Your task to perform on an android device: Play the last video I watched on Youtube Image 0: 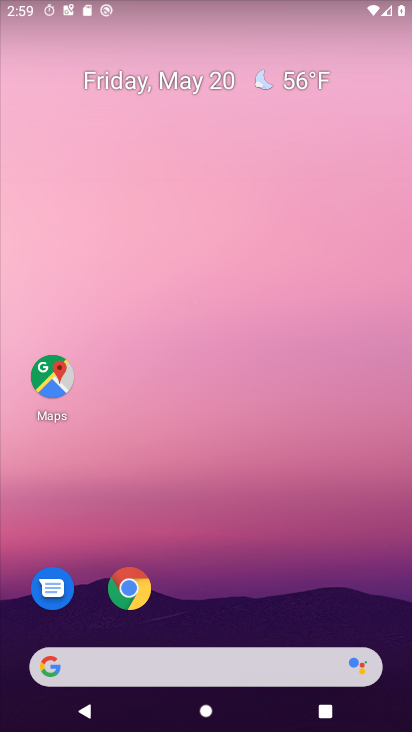
Step 0: drag from (17, 604) to (186, 171)
Your task to perform on an android device: Play the last video I watched on Youtube Image 1: 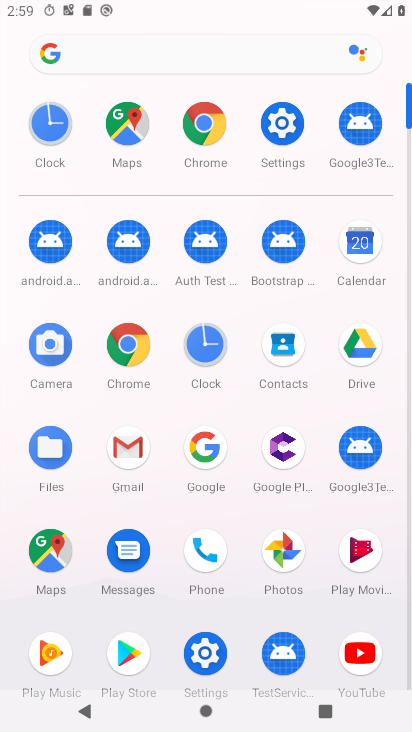
Step 1: click (349, 686)
Your task to perform on an android device: Play the last video I watched on Youtube Image 2: 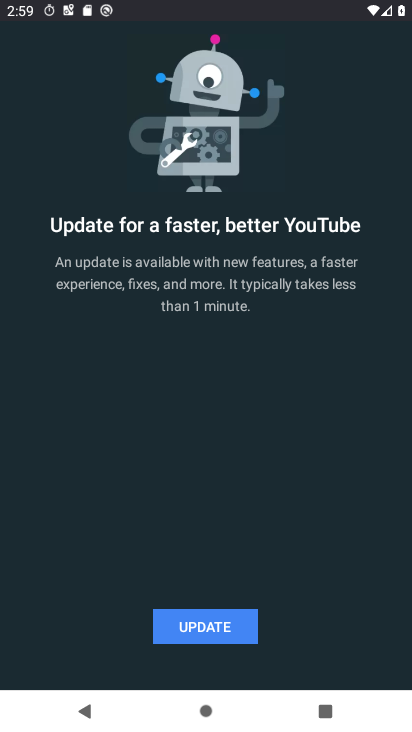
Step 2: task complete